Your task to perform on an android device: turn off wifi Image 0: 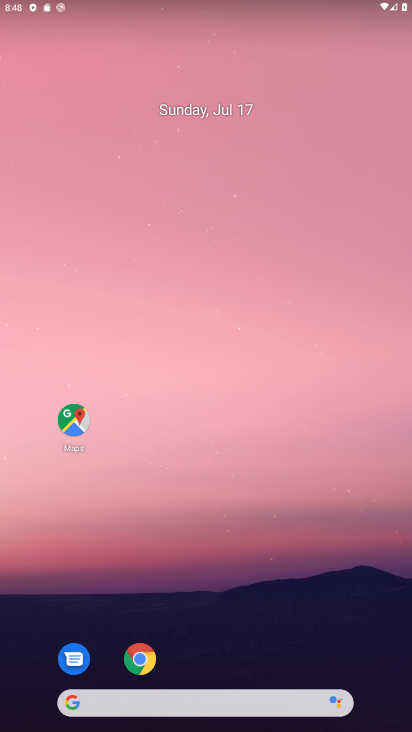
Step 0: drag from (220, 685) to (214, 160)
Your task to perform on an android device: turn off wifi Image 1: 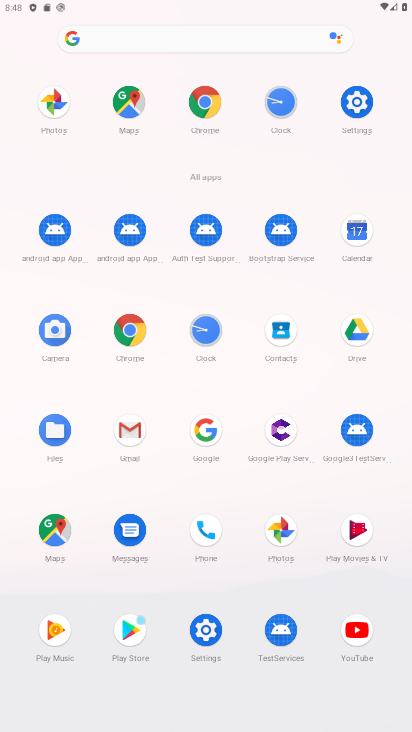
Step 1: click (367, 85)
Your task to perform on an android device: turn off wifi Image 2: 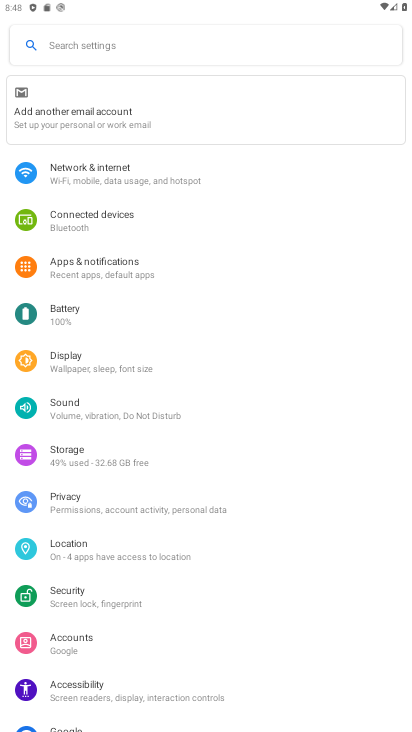
Step 2: click (76, 174)
Your task to perform on an android device: turn off wifi Image 3: 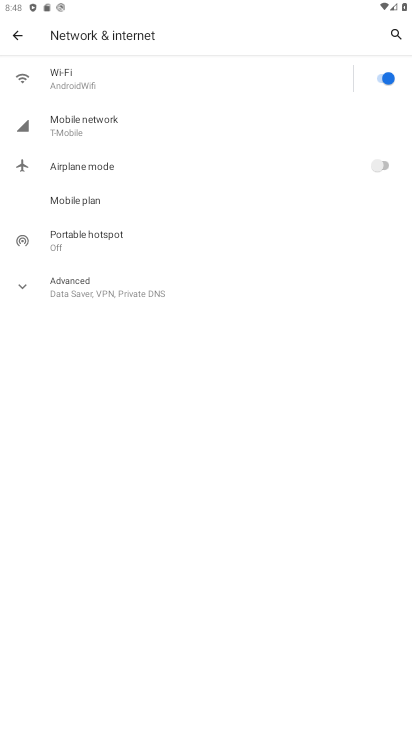
Step 3: click (384, 77)
Your task to perform on an android device: turn off wifi Image 4: 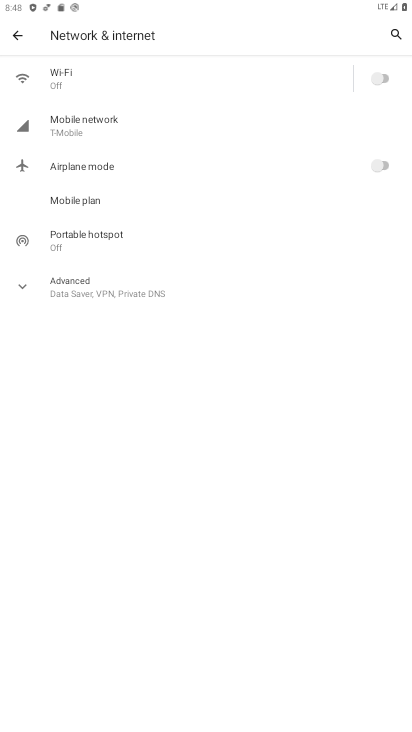
Step 4: task complete